Your task to perform on an android device: Open Maps and search for coffee Image 0: 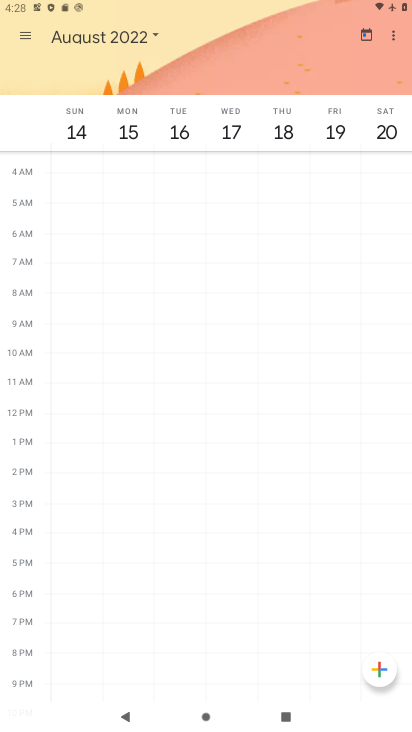
Step 0: press home button
Your task to perform on an android device: Open Maps and search for coffee Image 1: 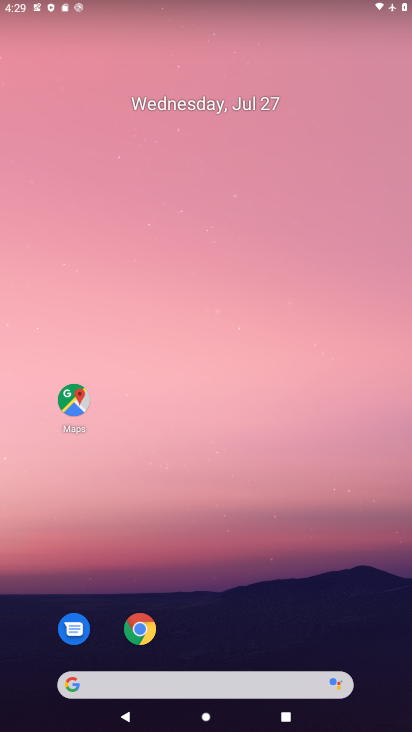
Step 1: drag from (217, 616) to (128, 171)
Your task to perform on an android device: Open Maps and search for coffee Image 2: 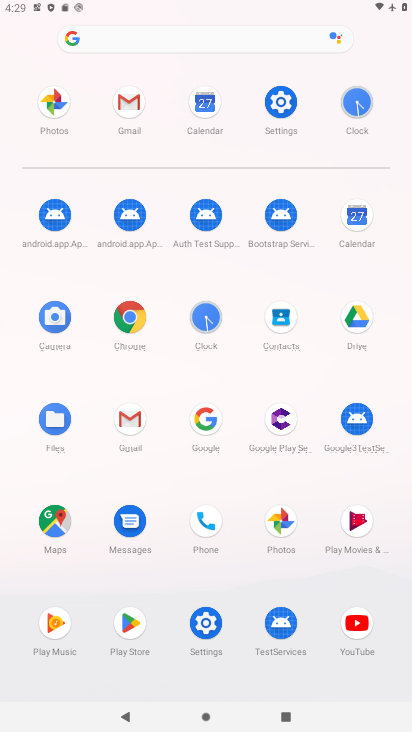
Step 2: click (69, 523)
Your task to perform on an android device: Open Maps and search for coffee Image 3: 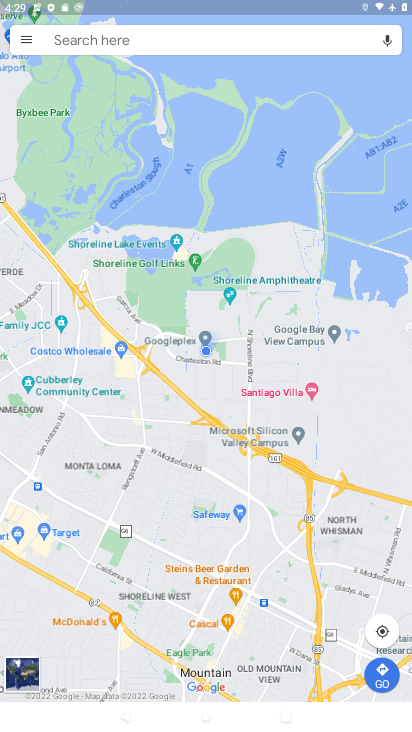
Step 3: click (123, 49)
Your task to perform on an android device: Open Maps and search for coffee Image 4: 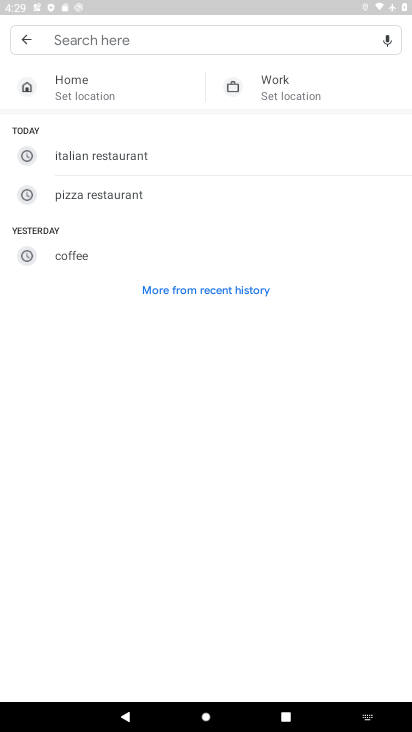
Step 4: click (66, 258)
Your task to perform on an android device: Open Maps and search for coffee Image 5: 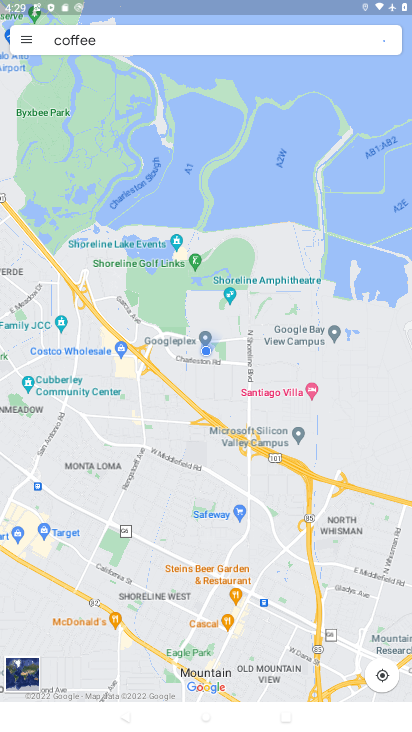
Step 5: task complete